Your task to perform on an android device: Search for alienware area 51 on walmart.com, select the first entry, add it to the cart, then select checkout. Image 0: 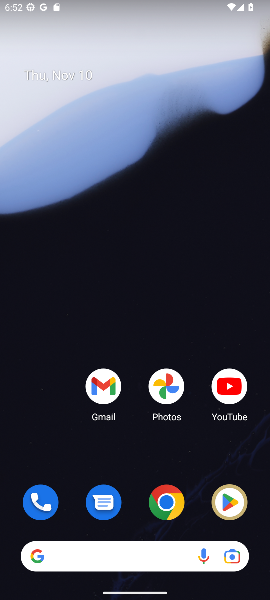
Step 0: drag from (139, 532) to (169, 26)
Your task to perform on an android device: Search for alienware area 51 on walmart.com, select the first entry, add it to the cart, then select checkout. Image 1: 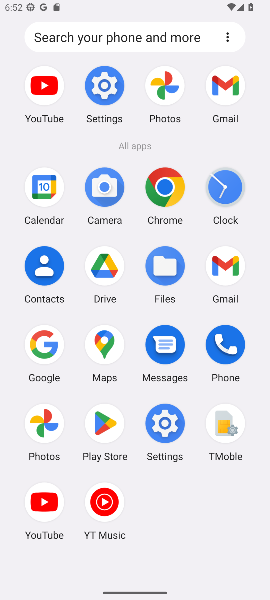
Step 1: click (37, 346)
Your task to perform on an android device: Search for alienware area 51 on walmart.com, select the first entry, add it to the cart, then select checkout. Image 2: 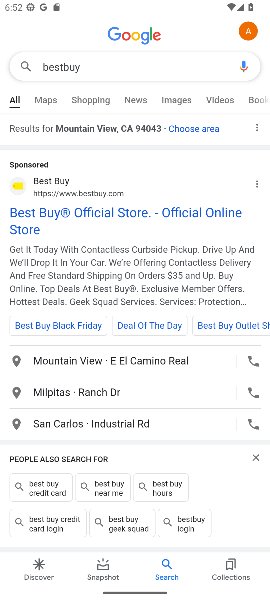
Step 2: click (137, 68)
Your task to perform on an android device: Search for alienware area 51 on walmart.com, select the first entry, add it to the cart, then select checkout. Image 3: 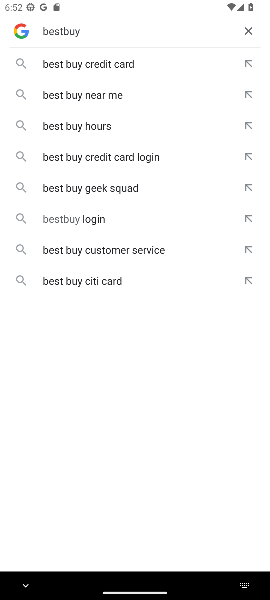
Step 3: click (251, 30)
Your task to perform on an android device: Search for alienware area 51 on walmart.com, select the first entry, add it to the cart, then select checkout. Image 4: 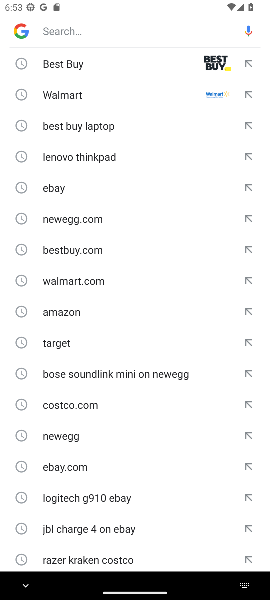
Step 4: type "walmart.com"
Your task to perform on an android device: Search for alienware area 51 on walmart.com, select the first entry, add it to the cart, then select checkout. Image 5: 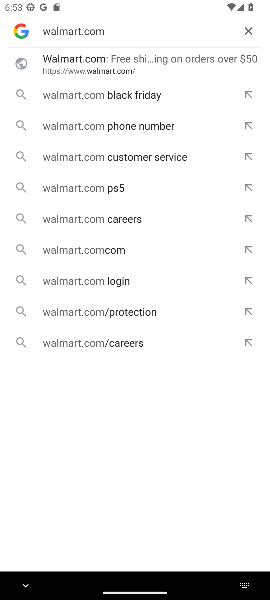
Step 5: click (100, 62)
Your task to perform on an android device: Search for alienware area 51 on walmart.com, select the first entry, add it to the cart, then select checkout. Image 6: 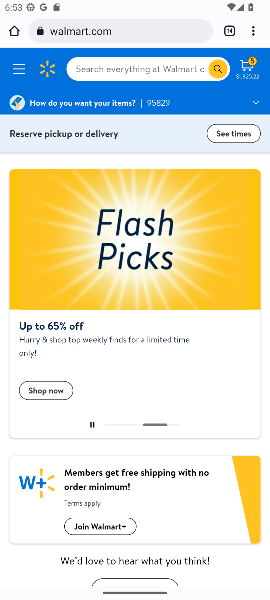
Step 6: click (102, 71)
Your task to perform on an android device: Search for alienware area 51 on walmart.com, select the first entry, add it to the cart, then select checkout. Image 7: 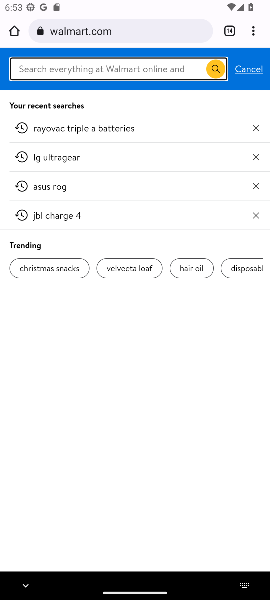
Step 7: type " alienware area 51"
Your task to perform on an android device: Search for alienware area 51 on walmart.com, select the first entry, add it to the cart, then select checkout. Image 8: 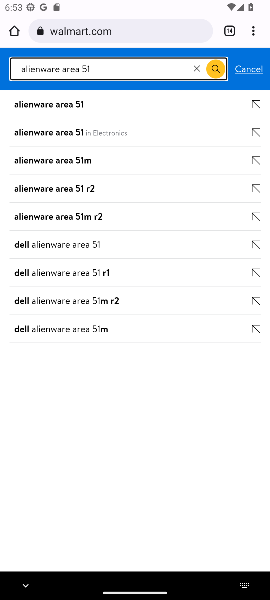
Step 8: click (217, 67)
Your task to perform on an android device: Search for alienware area 51 on walmart.com, select the first entry, add it to the cart, then select checkout. Image 9: 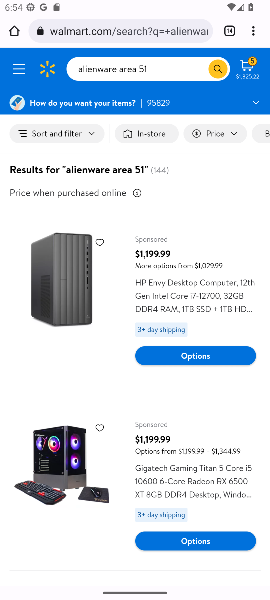
Step 9: click (186, 352)
Your task to perform on an android device: Search for alienware area 51 on walmart.com, select the first entry, add it to the cart, then select checkout. Image 10: 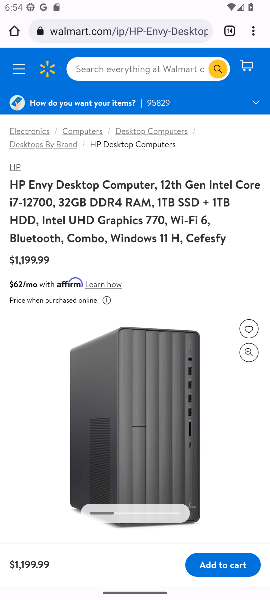
Step 10: click (221, 576)
Your task to perform on an android device: Search for alienware area 51 on walmart.com, select the first entry, add it to the cart, then select checkout. Image 11: 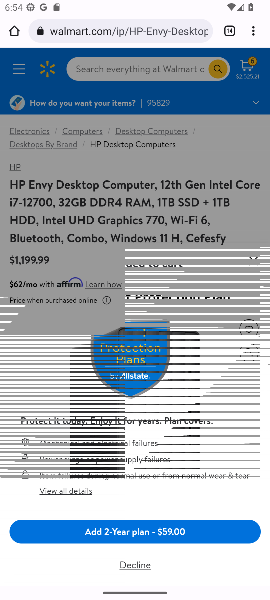
Step 11: click (248, 71)
Your task to perform on an android device: Search for alienware area 51 on walmart.com, select the first entry, add it to the cart, then select checkout. Image 12: 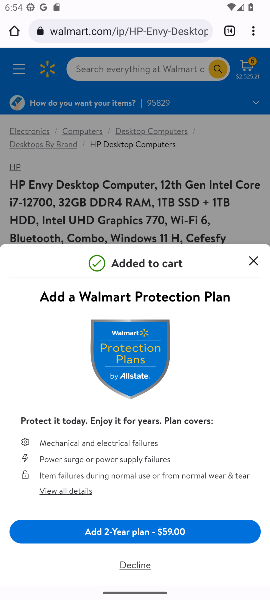
Step 12: click (141, 565)
Your task to perform on an android device: Search for alienware area 51 on walmart.com, select the first entry, add it to the cart, then select checkout. Image 13: 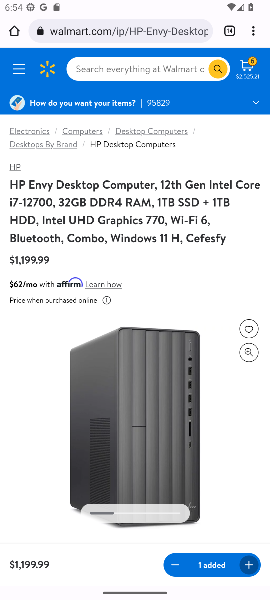
Step 13: click (245, 71)
Your task to perform on an android device: Search for alienware area 51 on walmart.com, select the first entry, add it to the cart, then select checkout. Image 14: 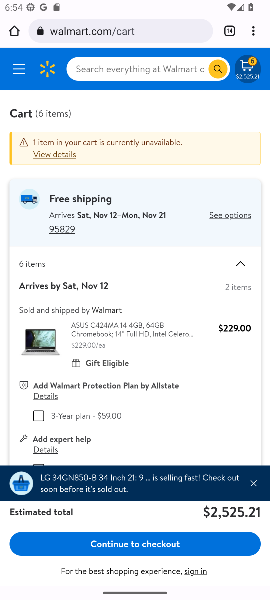
Step 14: click (125, 540)
Your task to perform on an android device: Search for alienware area 51 on walmart.com, select the first entry, add it to the cart, then select checkout. Image 15: 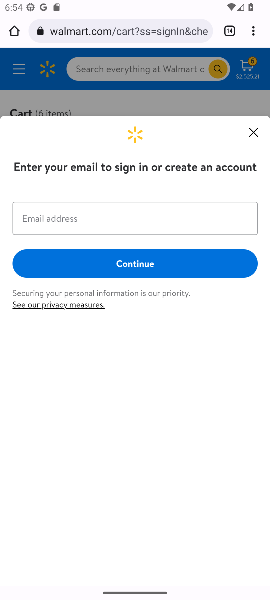
Step 15: task complete